Your task to perform on an android device: change keyboard looks Image 0: 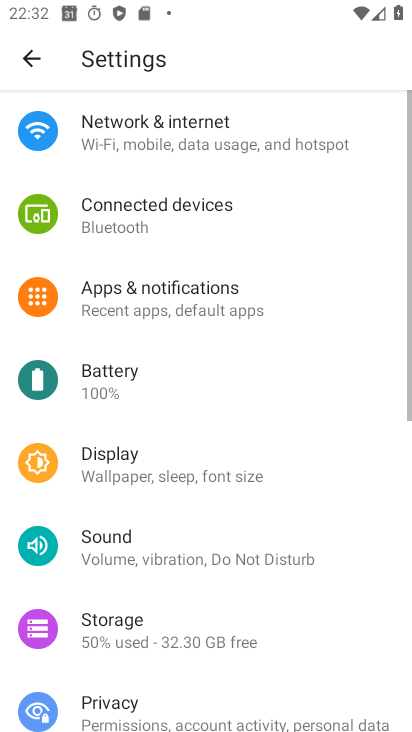
Step 0: press home button
Your task to perform on an android device: change keyboard looks Image 1: 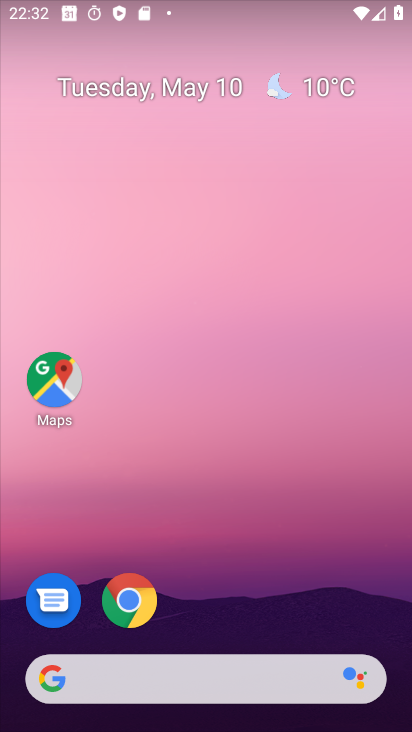
Step 1: drag from (242, 562) to (288, 44)
Your task to perform on an android device: change keyboard looks Image 2: 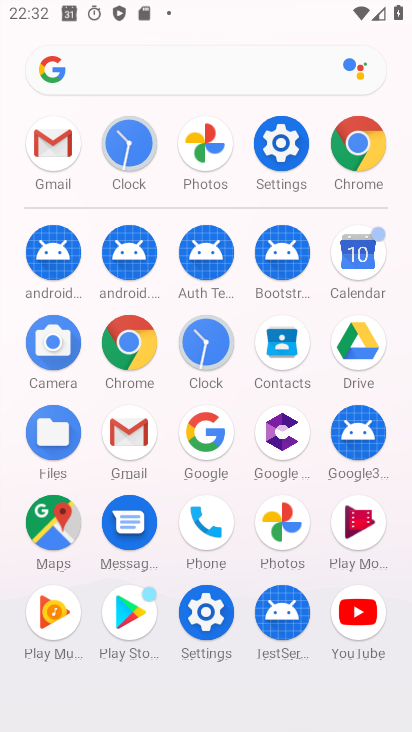
Step 2: click (210, 632)
Your task to perform on an android device: change keyboard looks Image 3: 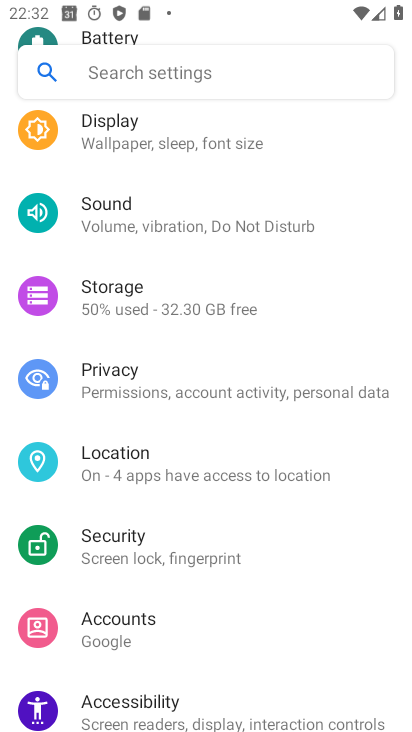
Step 3: drag from (219, 644) to (333, 145)
Your task to perform on an android device: change keyboard looks Image 4: 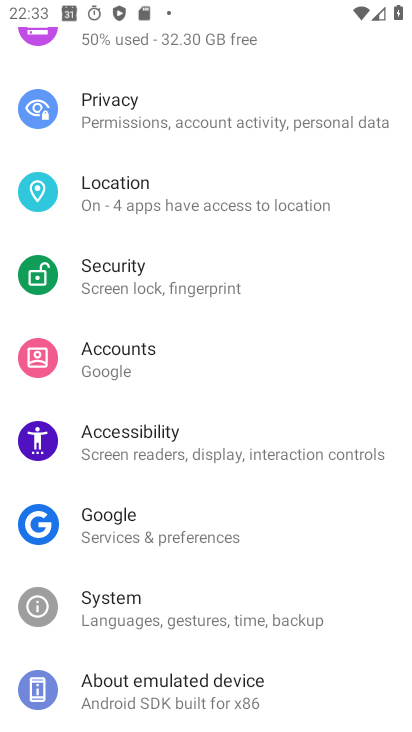
Step 4: click (216, 609)
Your task to perform on an android device: change keyboard looks Image 5: 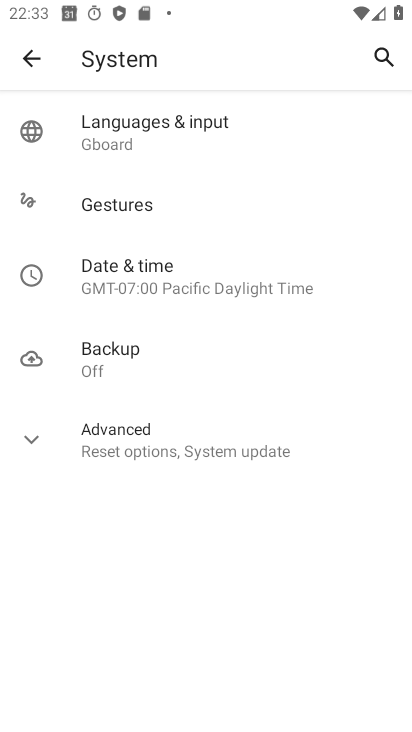
Step 5: click (133, 150)
Your task to perform on an android device: change keyboard looks Image 6: 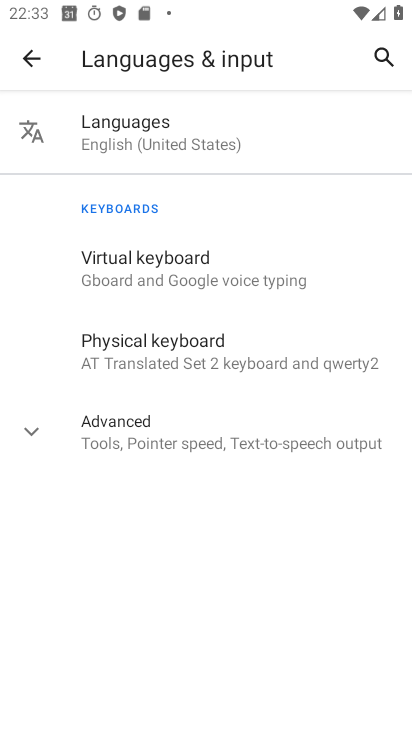
Step 6: click (141, 270)
Your task to perform on an android device: change keyboard looks Image 7: 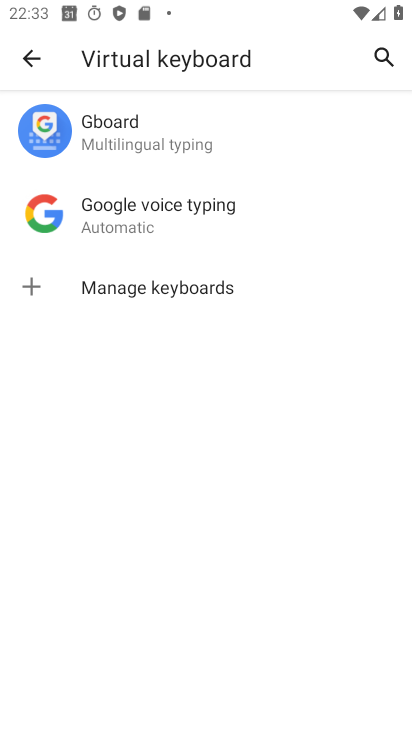
Step 7: click (117, 146)
Your task to perform on an android device: change keyboard looks Image 8: 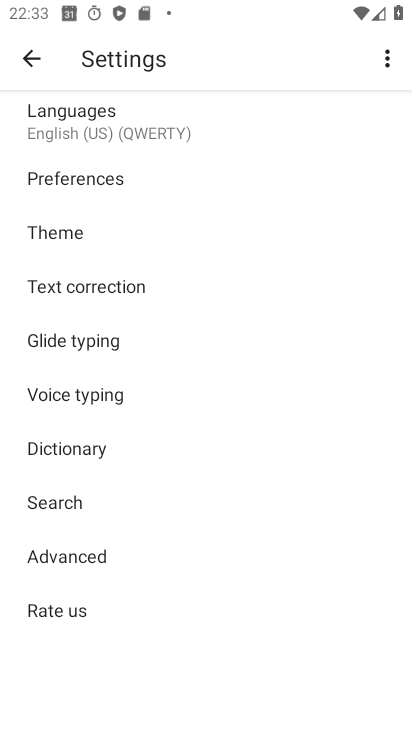
Step 8: click (55, 244)
Your task to perform on an android device: change keyboard looks Image 9: 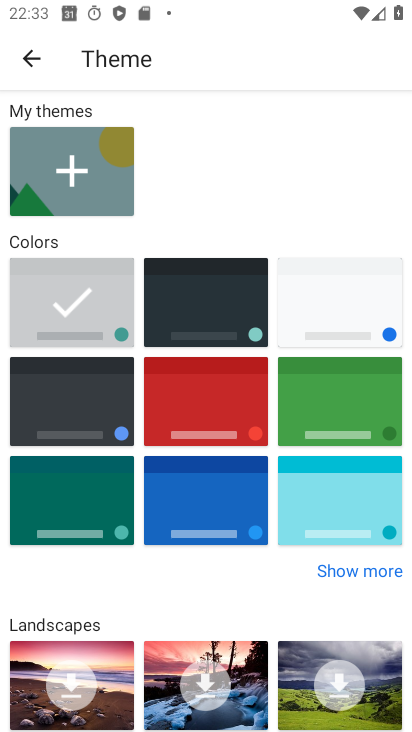
Step 9: click (204, 323)
Your task to perform on an android device: change keyboard looks Image 10: 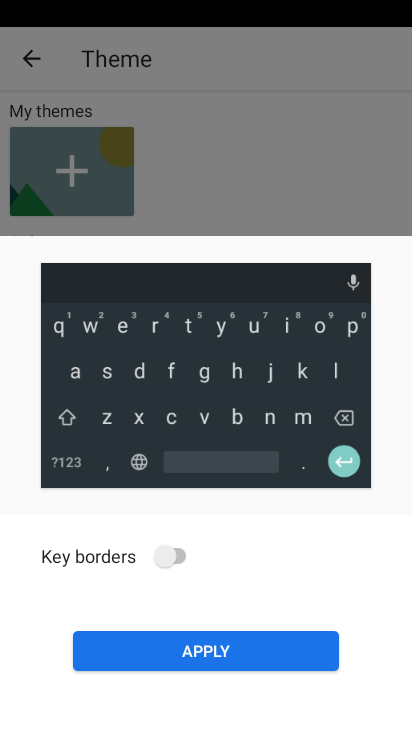
Step 10: click (187, 654)
Your task to perform on an android device: change keyboard looks Image 11: 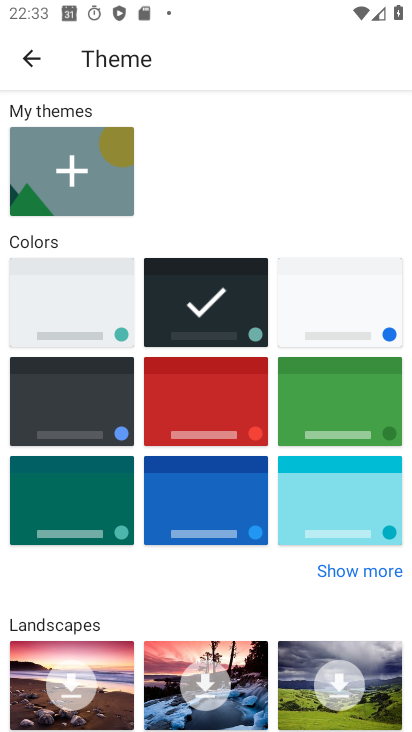
Step 11: task complete